Your task to perform on an android device: turn on wifi Image 0: 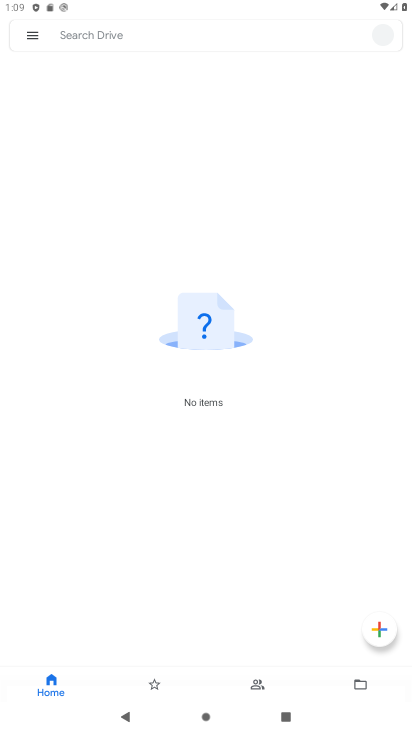
Step 0: drag from (179, 540) to (242, 124)
Your task to perform on an android device: turn on wifi Image 1: 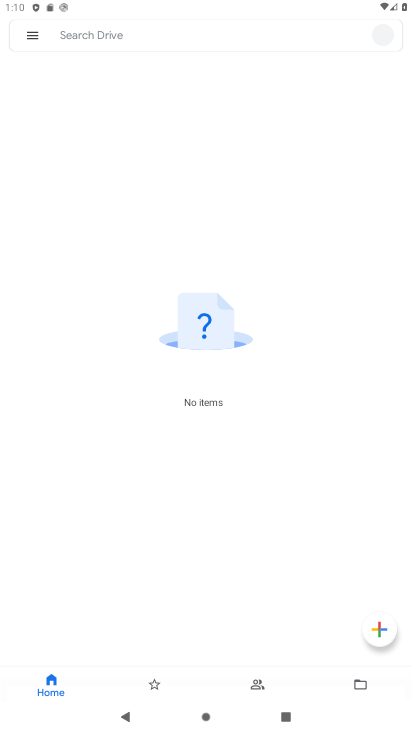
Step 1: press home button
Your task to perform on an android device: turn on wifi Image 2: 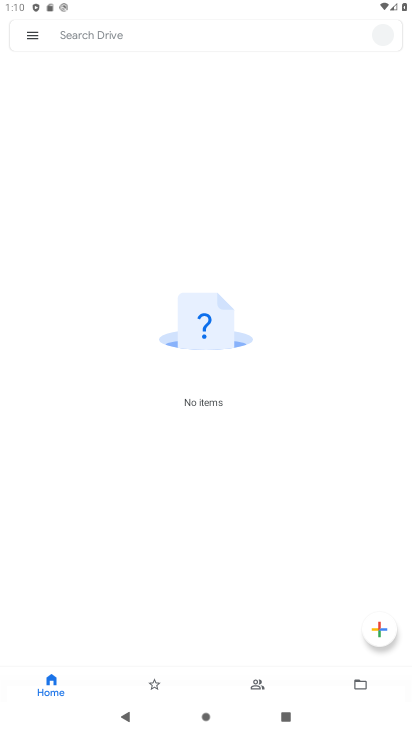
Step 2: press home button
Your task to perform on an android device: turn on wifi Image 3: 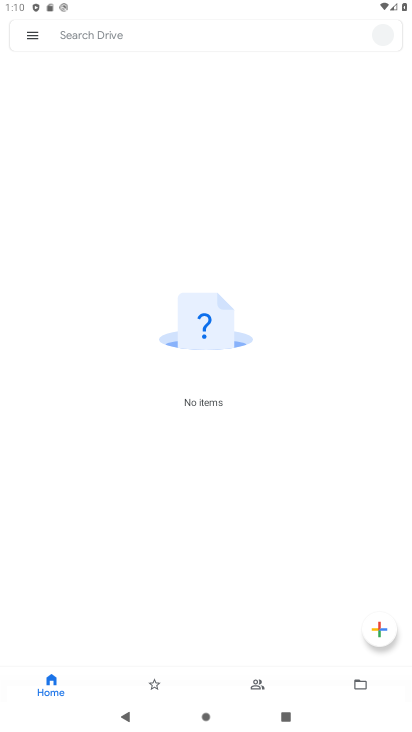
Step 3: drag from (163, 620) to (322, 41)
Your task to perform on an android device: turn on wifi Image 4: 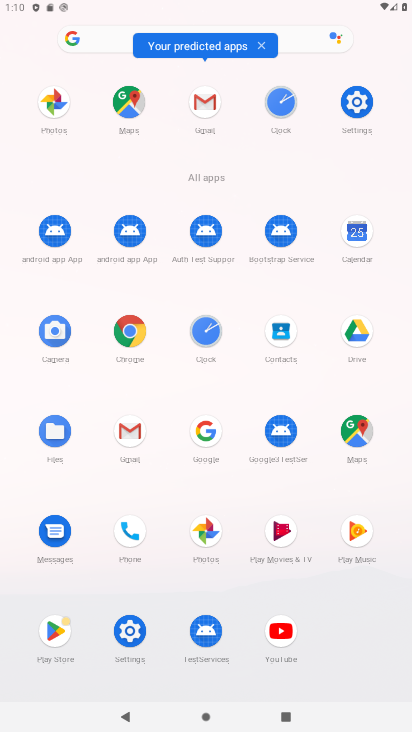
Step 4: click (132, 621)
Your task to perform on an android device: turn on wifi Image 5: 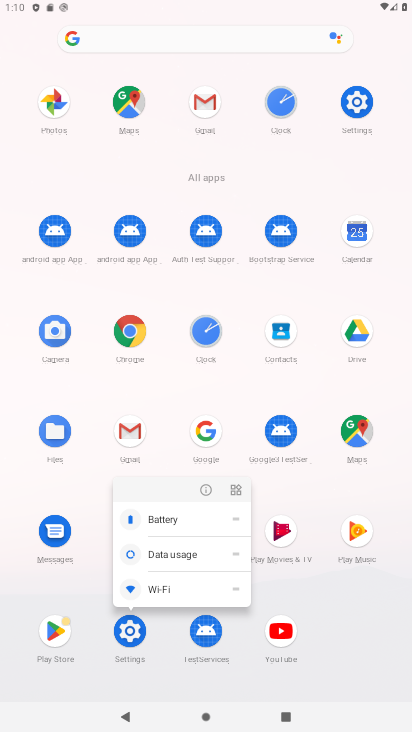
Step 5: click (198, 488)
Your task to perform on an android device: turn on wifi Image 6: 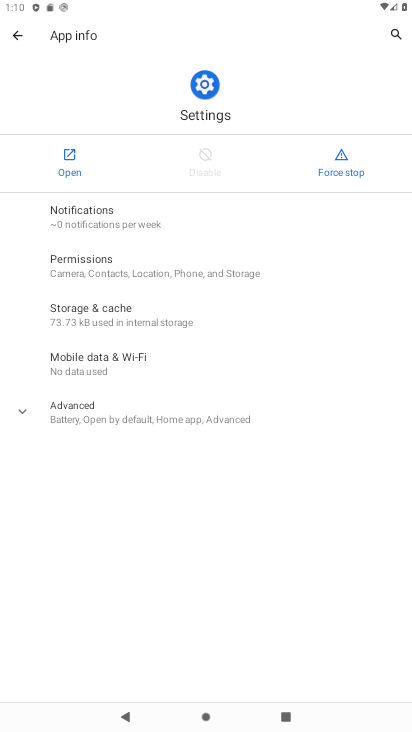
Step 6: click (69, 162)
Your task to perform on an android device: turn on wifi Image 7: 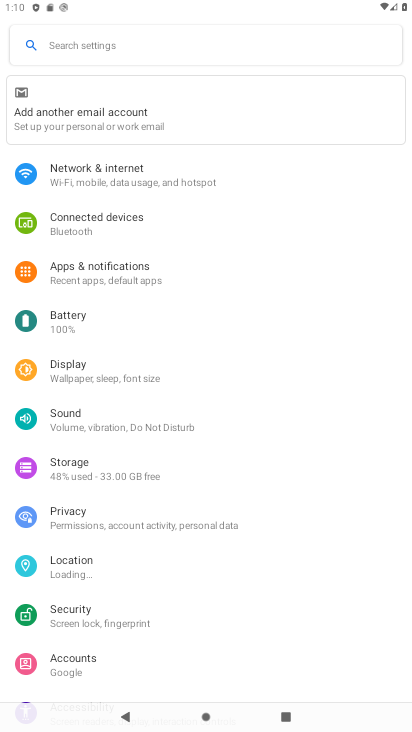
Step 7: click (137, 166)
Your task to perform on an android device: turn on wifi Image 8: 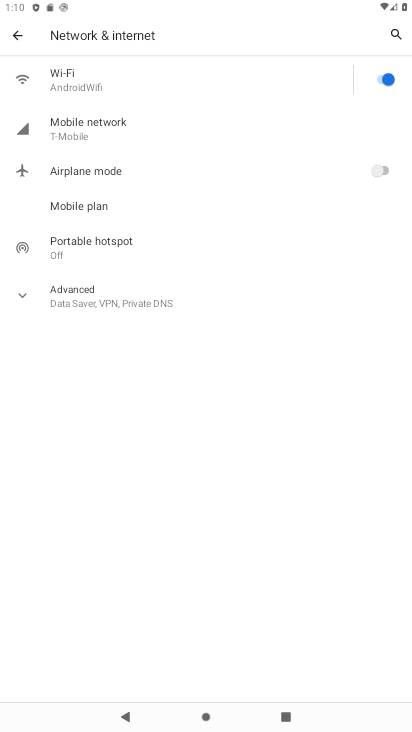
Step 8: click (117, 77)
Your task to perform on an android device: turn on wifi Image 9: 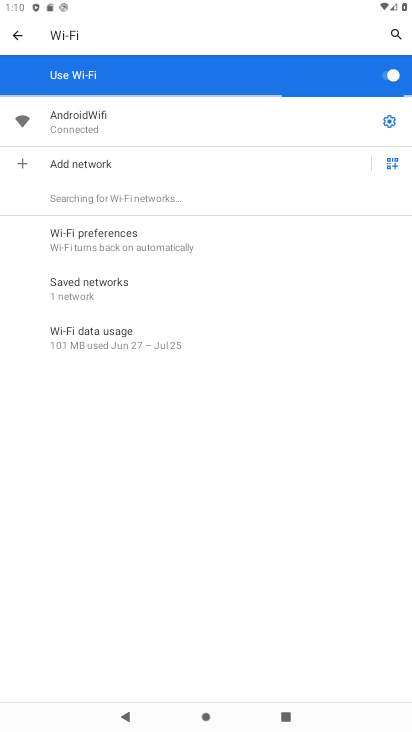
Step 9: task complete